Your task to perform on an android device: Search for vegetarian restaurants on Maps Image 0: 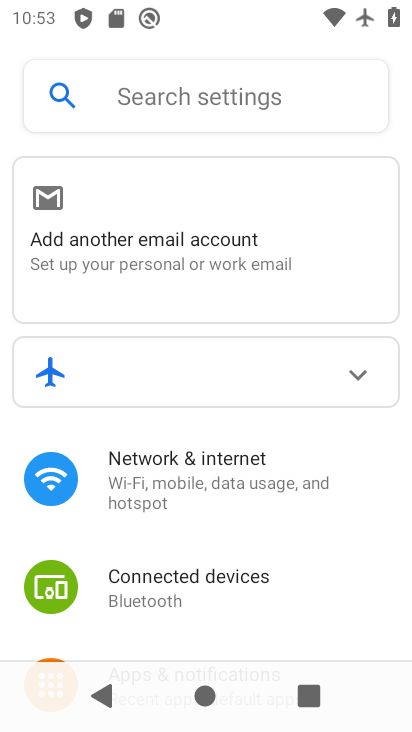
Step 0: press back button
Your task to perform on an android device: Search for vegetarian restaurants on Maps Image 1: 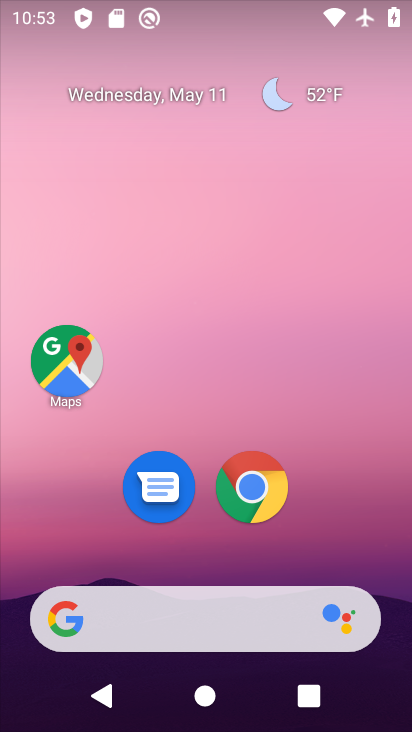
Step 1: click (60, 354)
Your task to perform on an android device: Search for vegetarian restaurants on Maps Image 2: 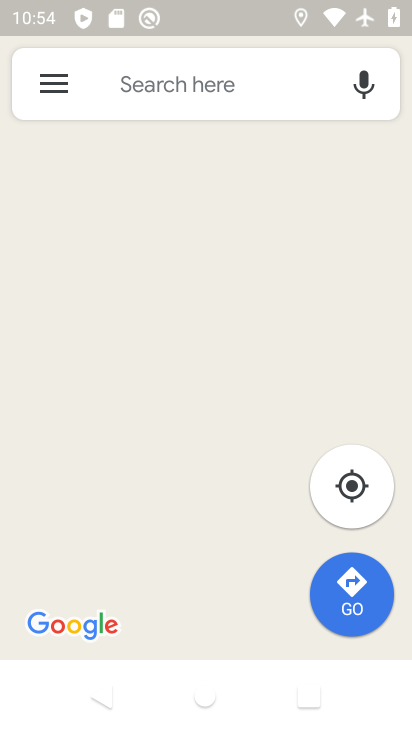
Step 2: click (253, 77)
Your task to perform on an android device: Search for vegetarian restaurants on Maps Image 3: 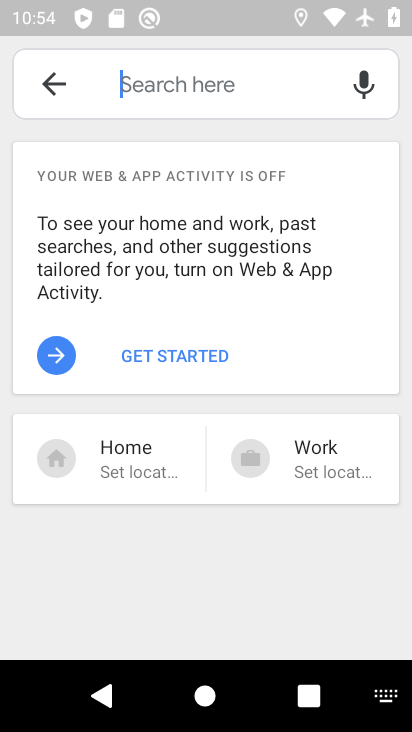
Step 3: type "vegetarian restaurants"
Your task to perform on an android device: Search for vegetarian restaurants on Maps Image 4: 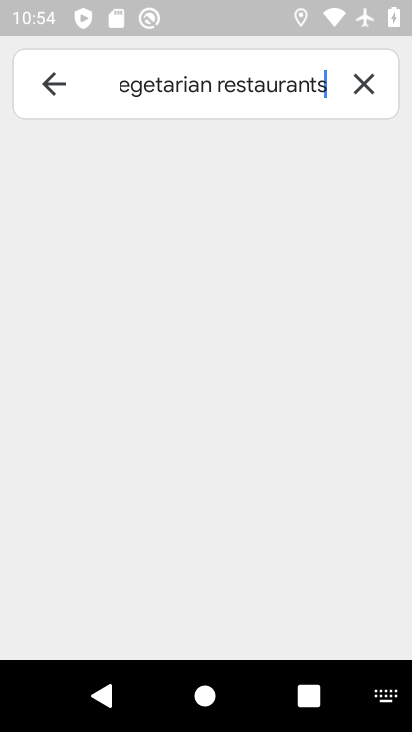
Step 4: type ""
Your task to perform on an android device: Search for vegetarian restaurants on Maps Image 5: 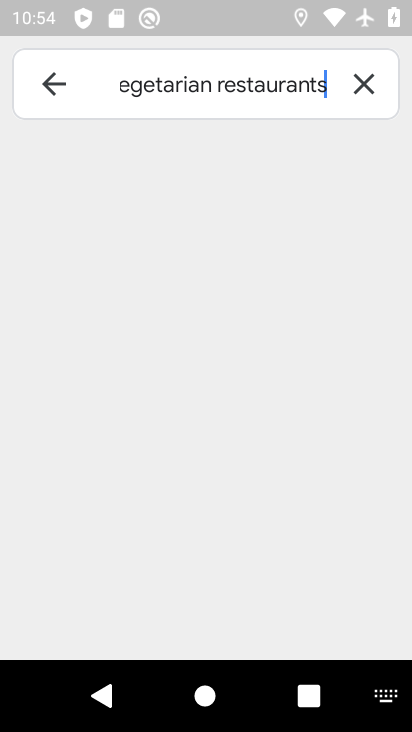
Step 5: task complete